Your task to perform on an android device: Open Wikipedia Image 0: 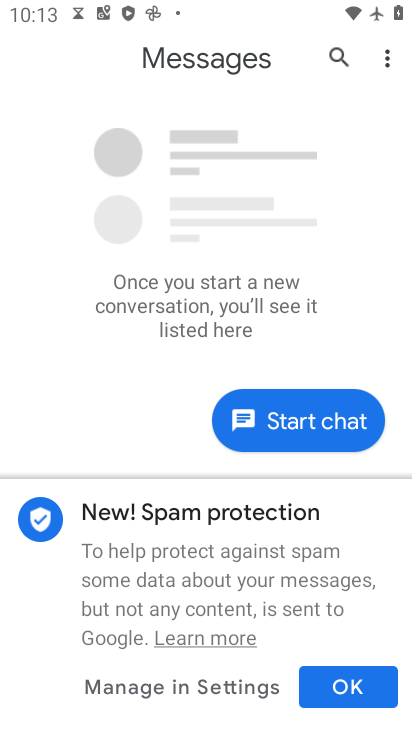
Step 0: press back button
Your task to perform on an android device: Open Wikipedia Image 1: 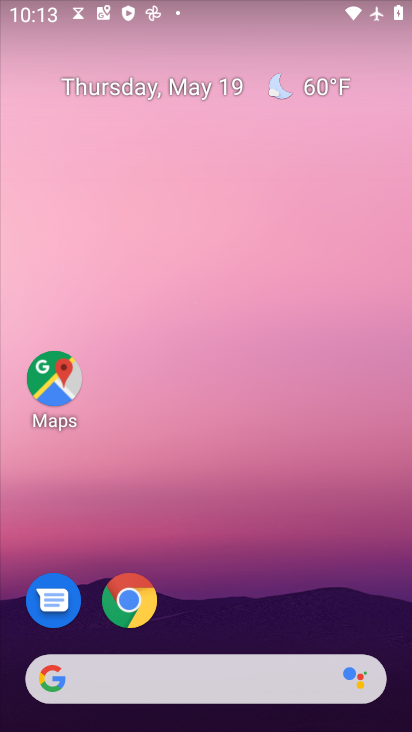
Step 1: drag from (269, 549) to (221, 46)
Your task to perform on an android device: Open Wikipedia Image 2: 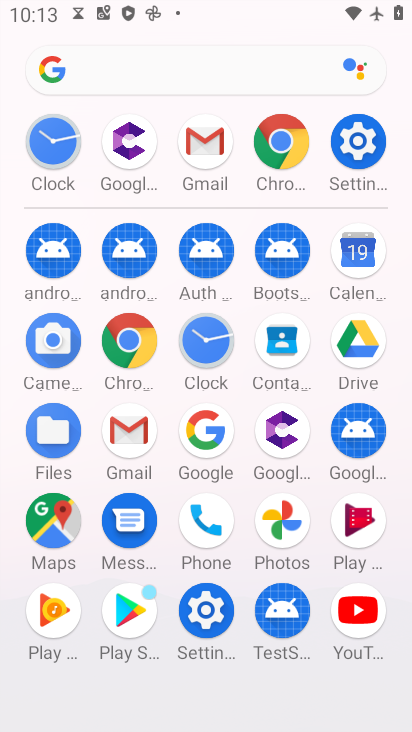
Step 2: click (281, 137)
Your task to perform on an android device: Open Wikipedia Image 3: 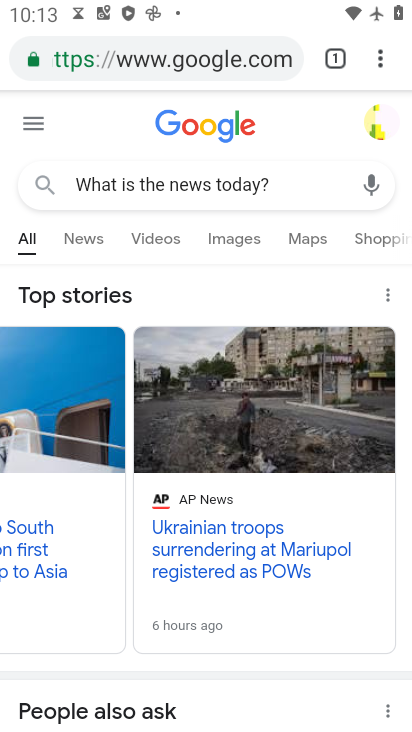
Step 3: click (212, 58)
Your task to perform on an android device: Open Wikipedia Image 4: 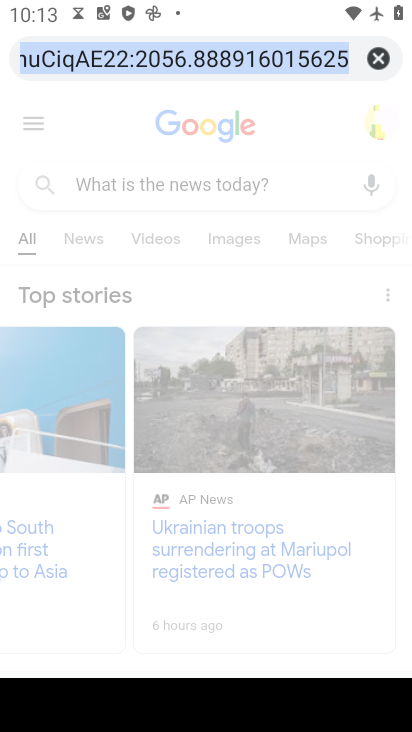
Step 4: click (383, 63)
Your task to perform on an android device: Open Wikipedia Image 5: 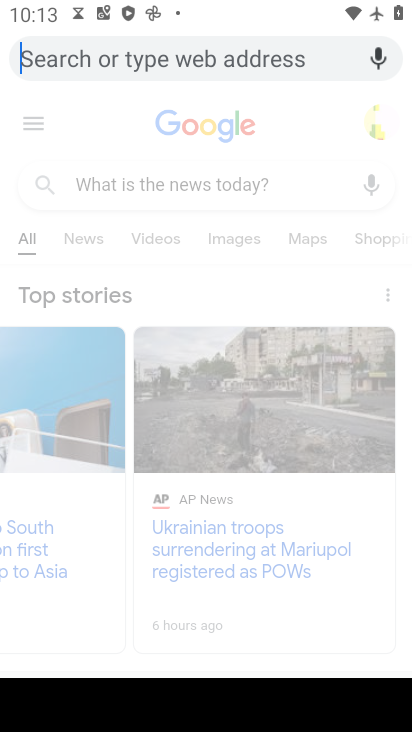
Step 5: type "Wikipedia"
Your task to perform on an android device: Open Wikipedia Image 6: 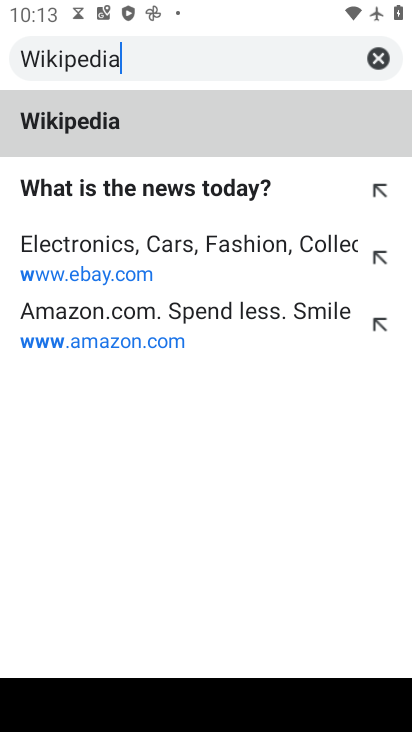
Step 6: type ""
Your task to perform on an android device: Open Wikipedia Image 7: 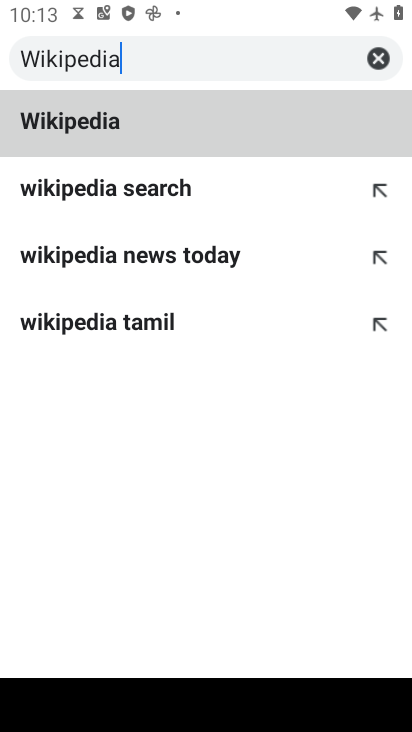
Step 7: click (144, 130)
Your task to perform on an android device: Open Wikipedia Image 8: 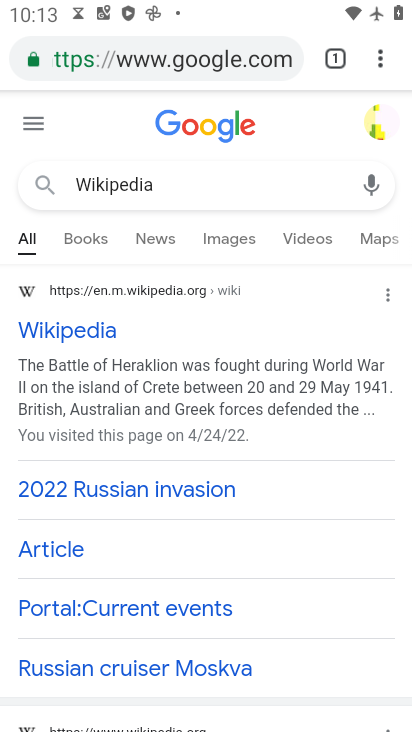
Step 8: click (66, 333)
Your task to perform on an android device: Open Wikipedia Image 9: 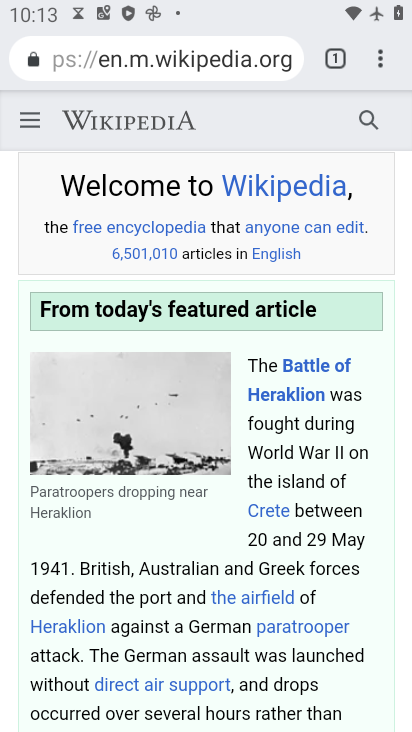
Step 9: task complete